Your task to perform on an android device: turn off location Image 0: 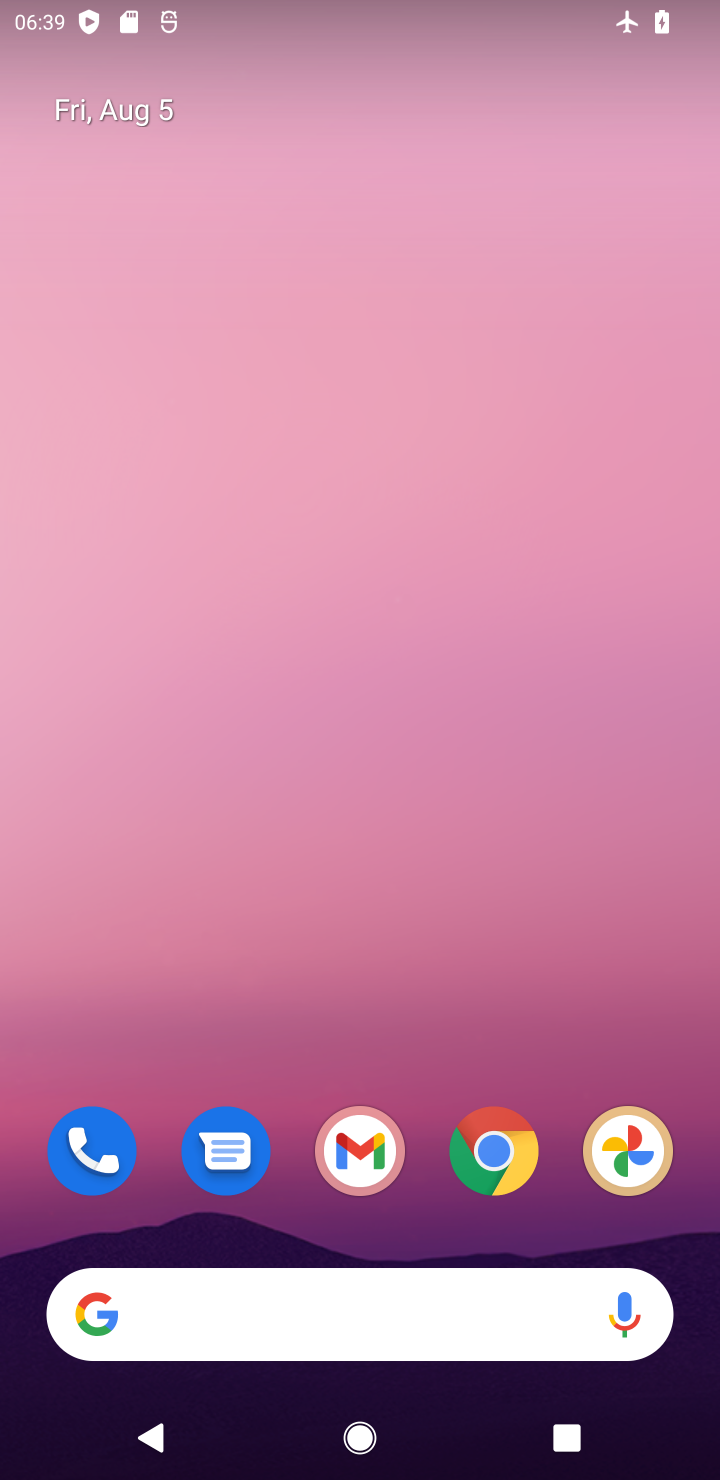
Step 0: drag from (297, 1094) to (183, 157)
Your task to perform on an android device: turn off location Image 1: 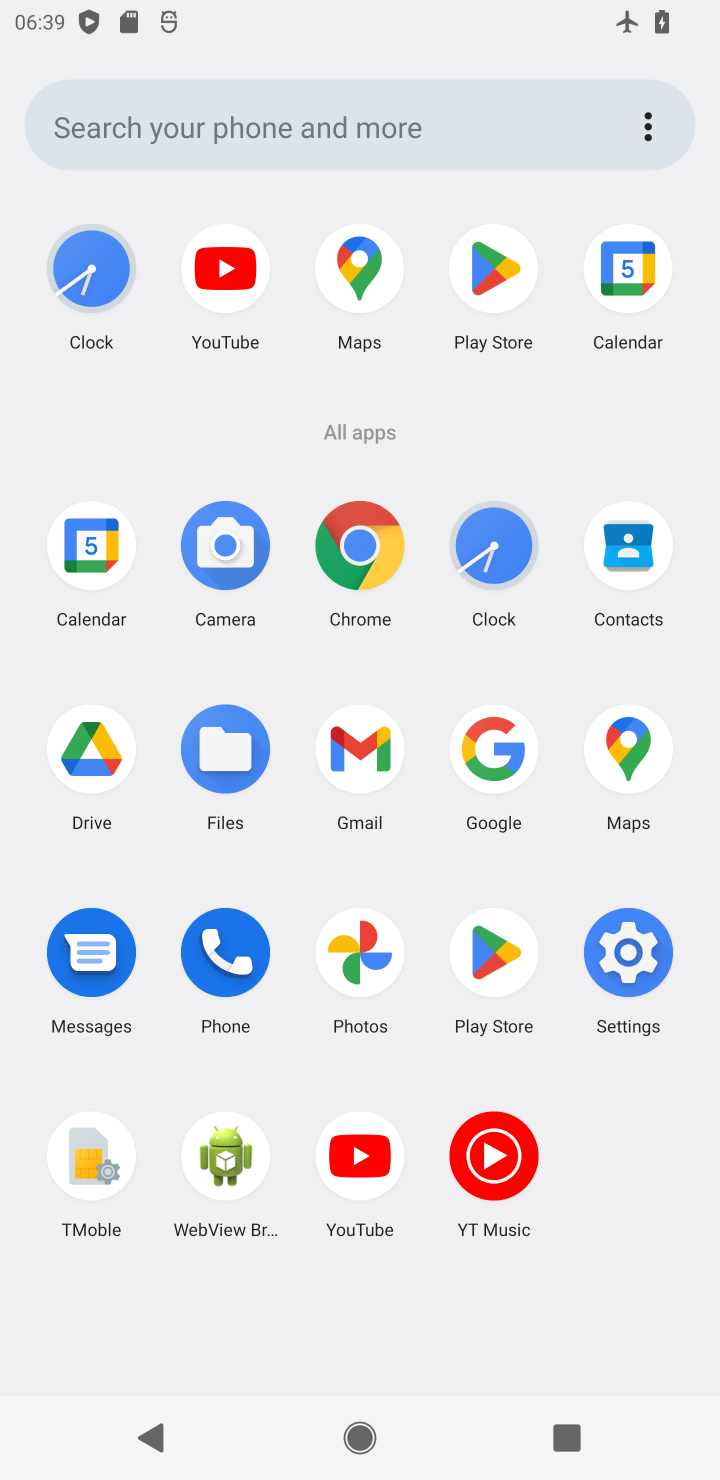
Step 1: click (607, 938)
Your task to perform on an android device: turn off location Image 2: 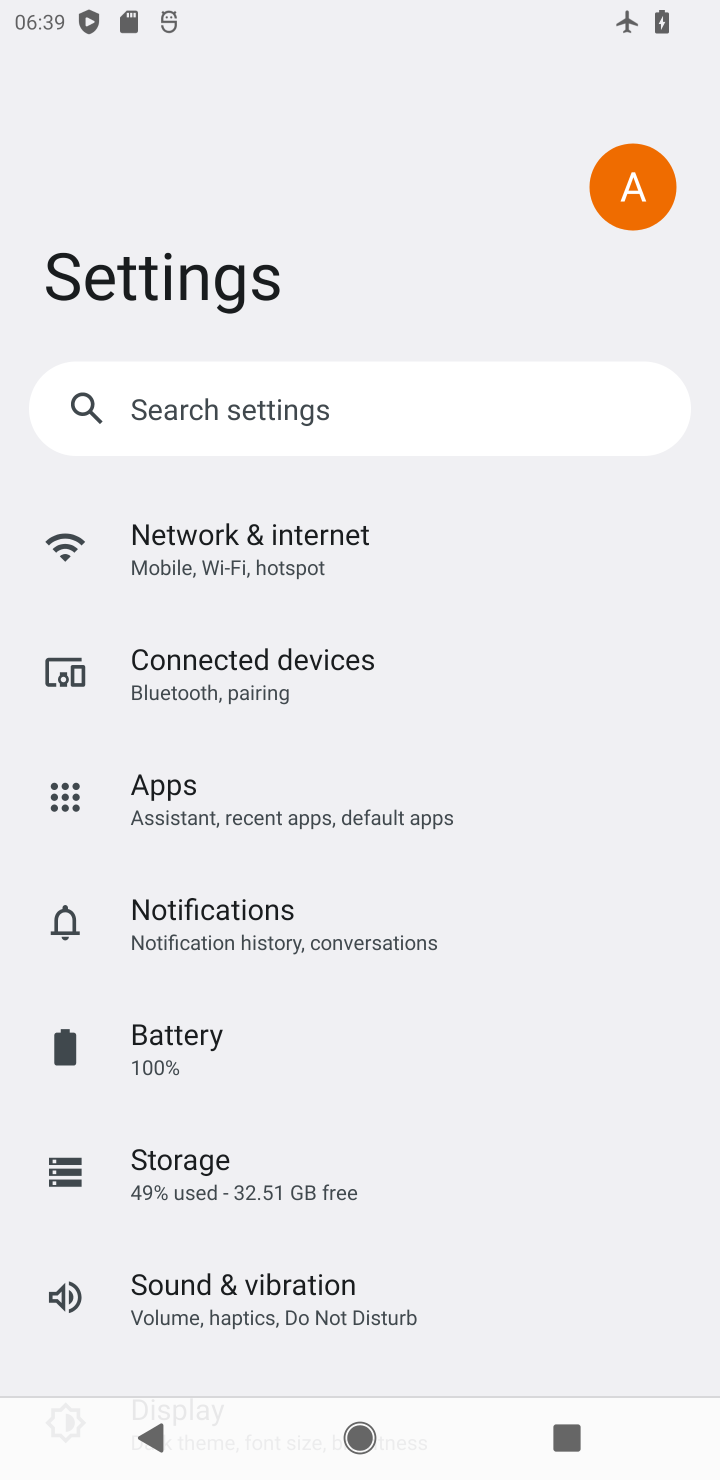
Step 2: drag from (376, 1188) to (404, 304)
Your task to perform on an android device: turn off location Image 3: 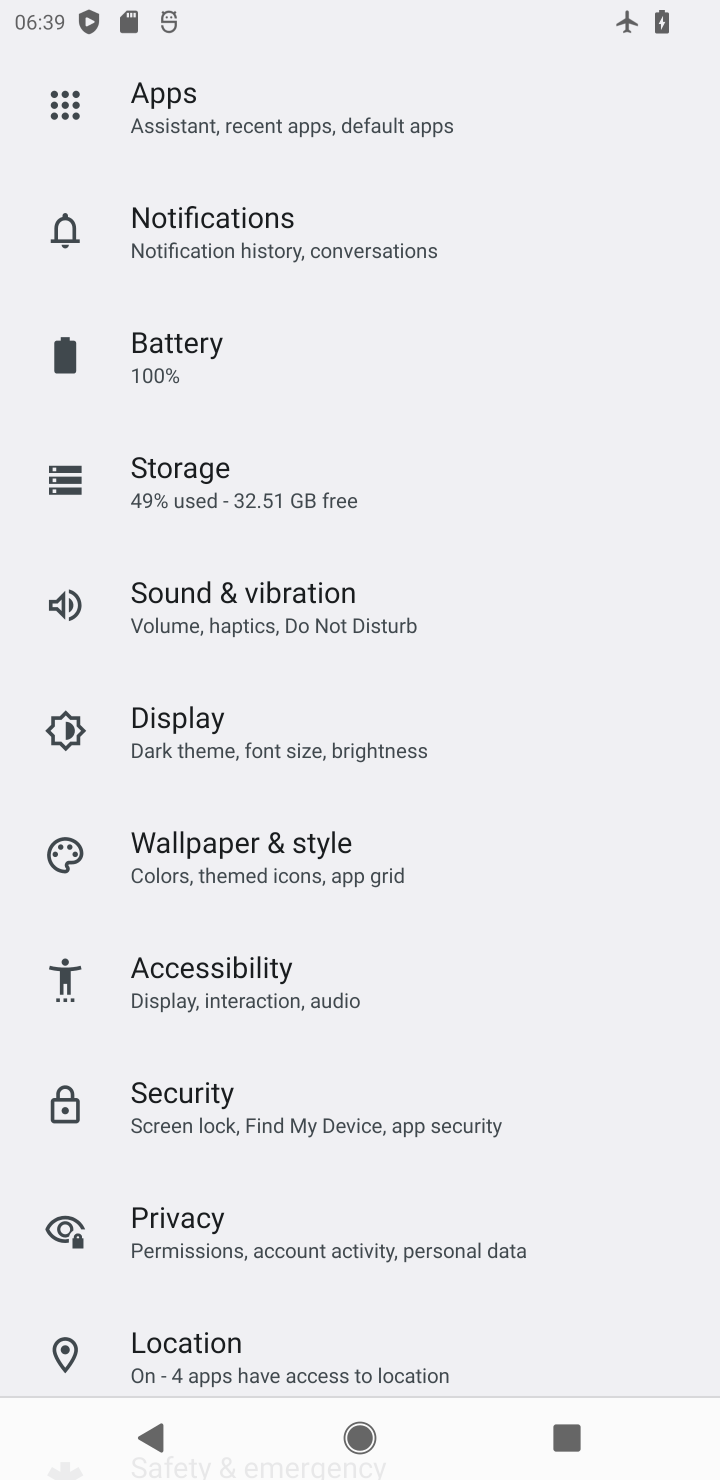
Step 3: click (214, 1326)
Your task to perform on an android device: turn off location Image 4: 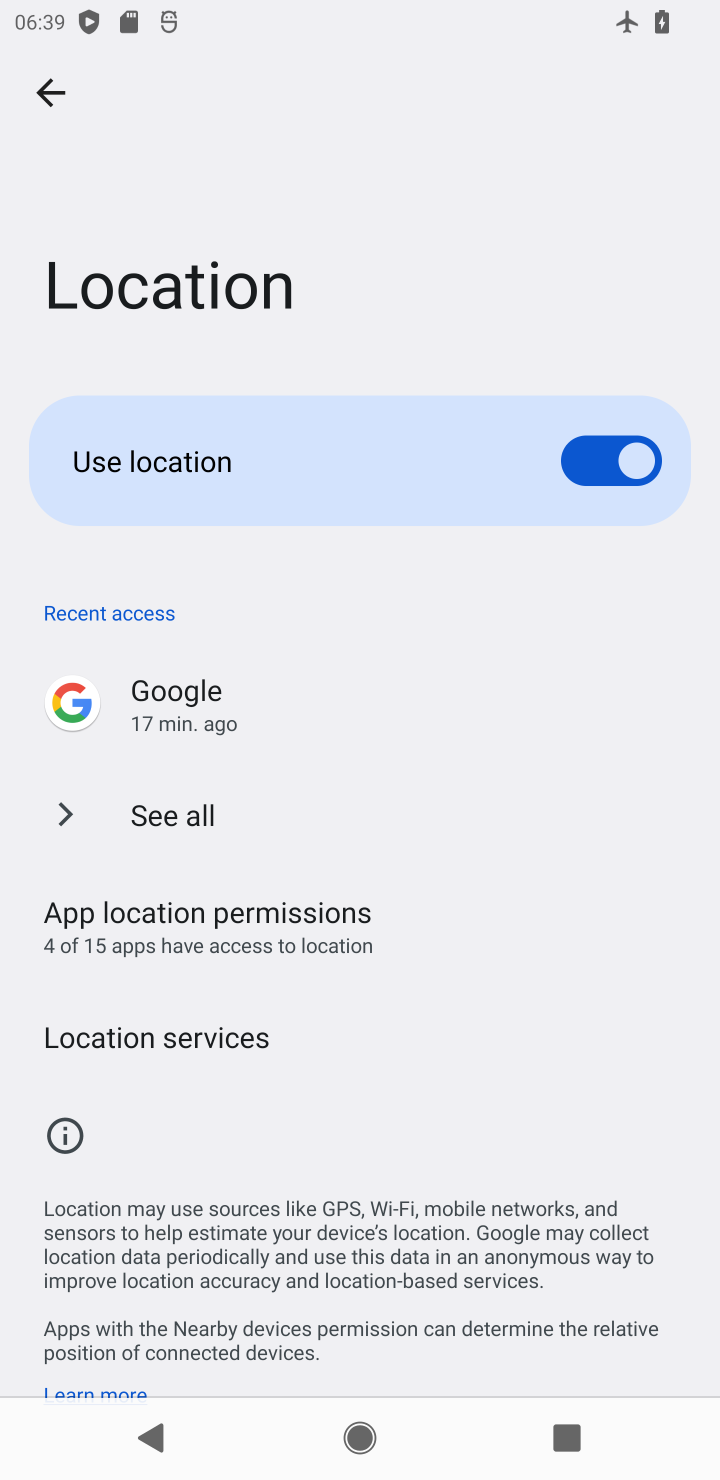
Step 4: click (608, 467)
Your task to perform on an android device: turn off location Image 5: 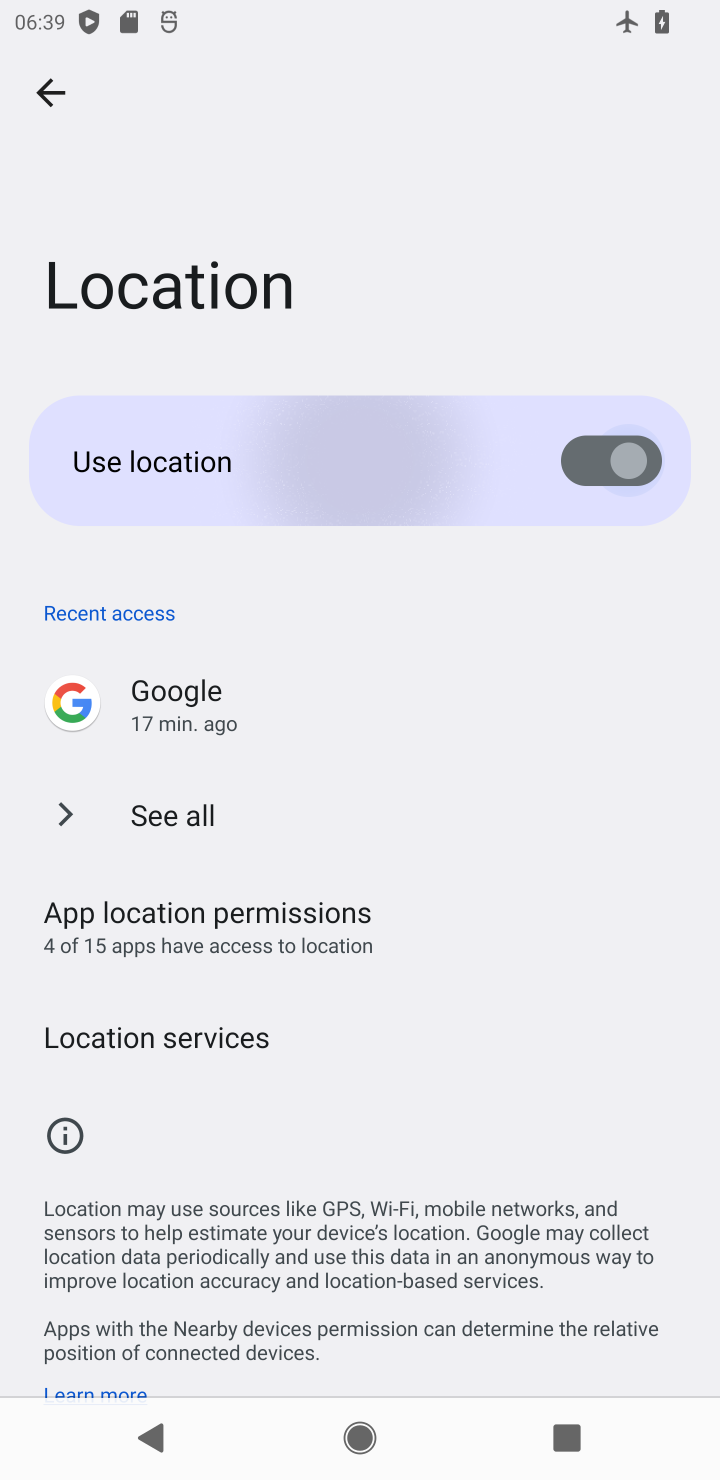
Step 5: task complete